Your task to perform on an android device: check android version Image 0: 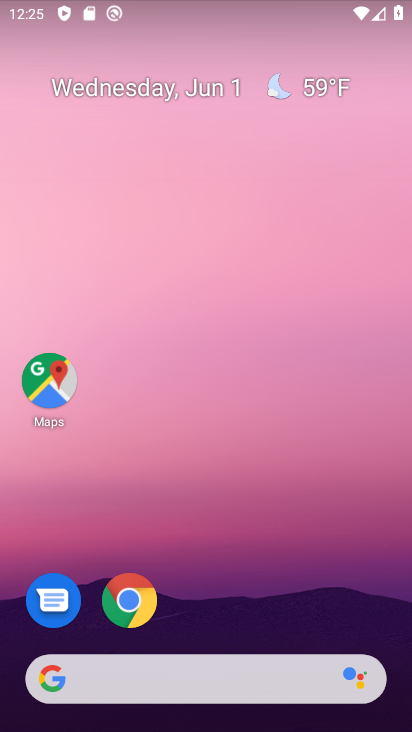
Step 0: click (337, 547)
Your task to perform on an android device: check android version Image 1: 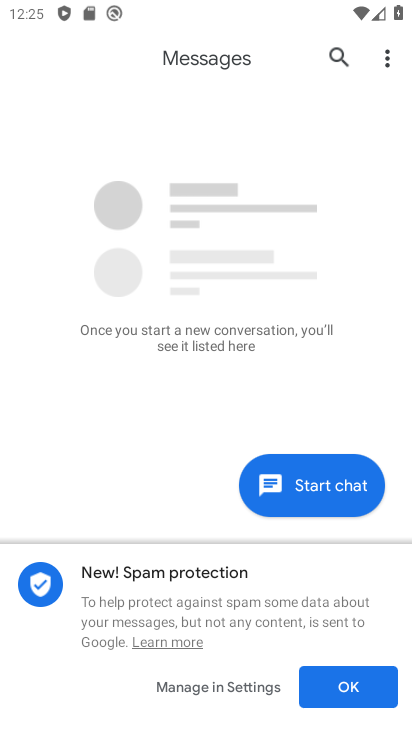
Step 1: press home button
Your task to perform on an android device: check android version Image 2: 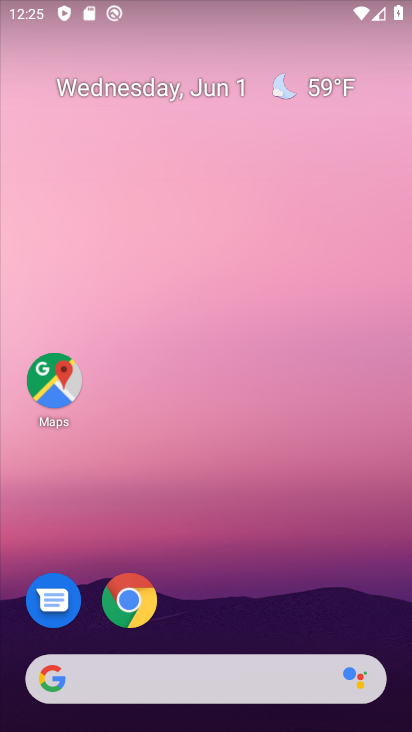
Step 2: drag from (181, 628) to (209, 49)
Your task to perform on an android device: check android version Image 3: 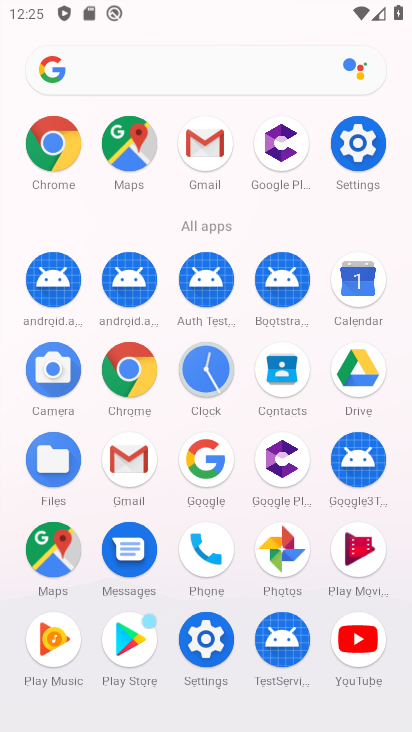
Step 3: click (382, 143)
Your task to perform on an android device: check android version Image 4: 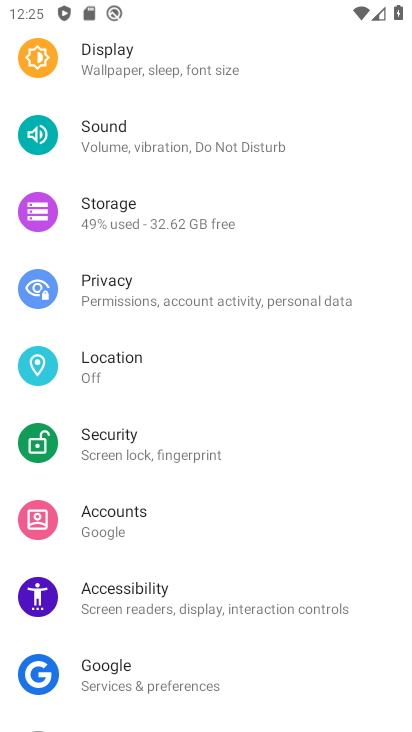
Step 4: drag from (144, 660) to (324, 78)
Your task to perform on an android device: check android version Image 5: 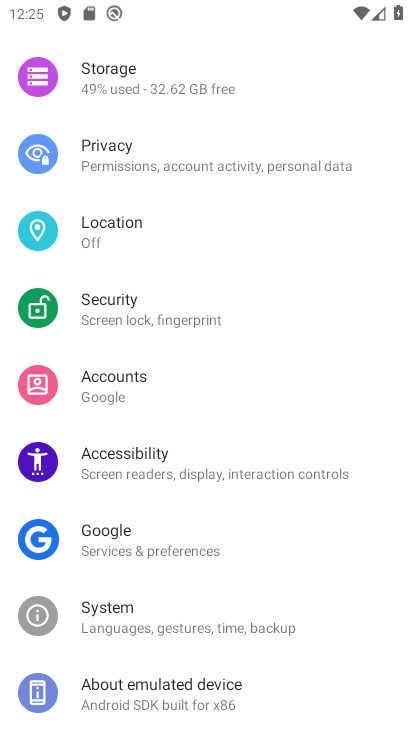
Step 5: click (121, 696)
Your task to perform on an android device: check android version Image 6: 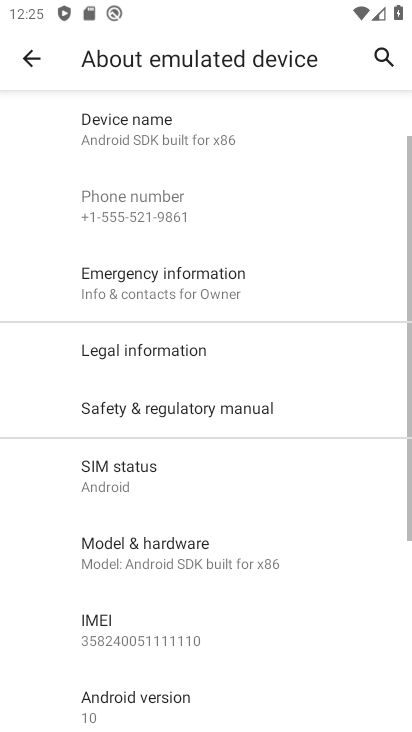
Step 6: drag from (115, 670) to (177, 202)
Your task to perform on an android device: check android version Image 7: 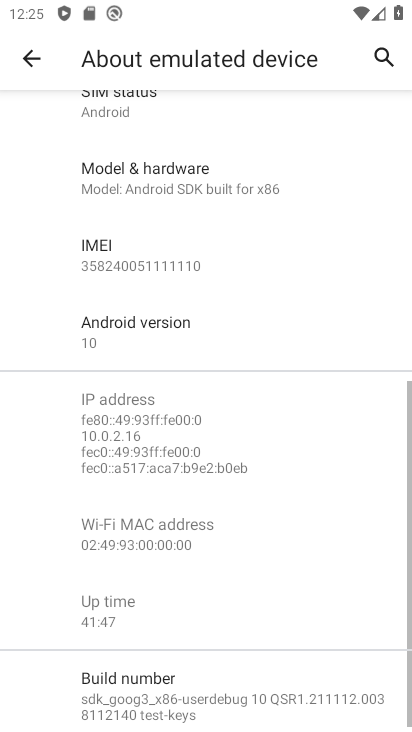
Step 7: click (231, 317)
Your task to perform on an android device: check android version Image 8: 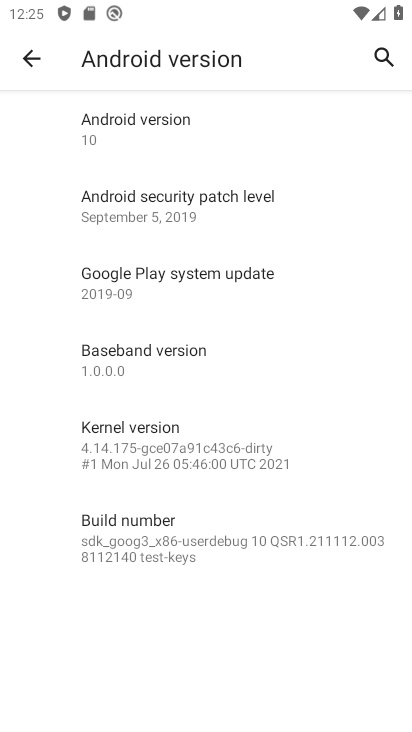
Step 8: task complete